Your task to perform on an android device: turn off notifications in google photos Image 0: 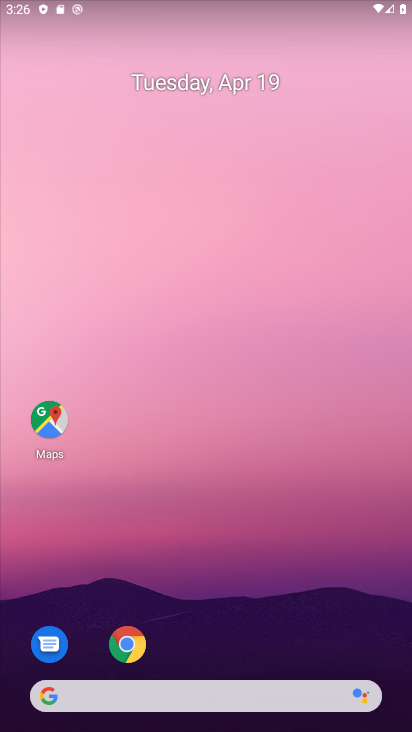
Step 0: drag from (203, 687) to (293, 160)
Your task to perform on an android device: turn off notifications in google photos Image 1: 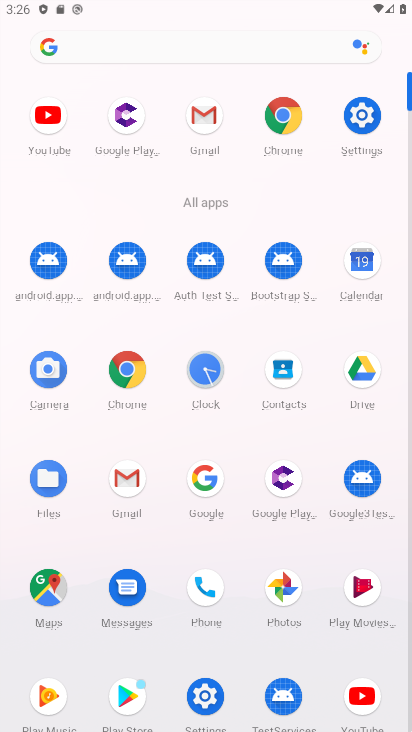
Step 1: click (300, 595)
Your task to perform on an android device: turn off notifications in google photos Image 2: 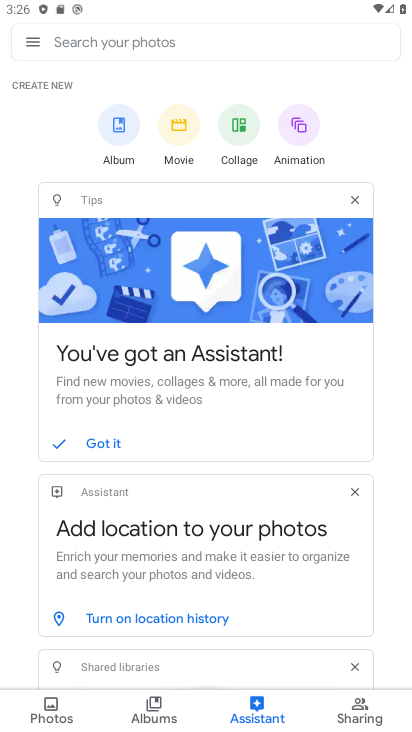
Step 2: click (42, 41)
Your task to perform on an android device: turn off notifications in google photos Image 3: 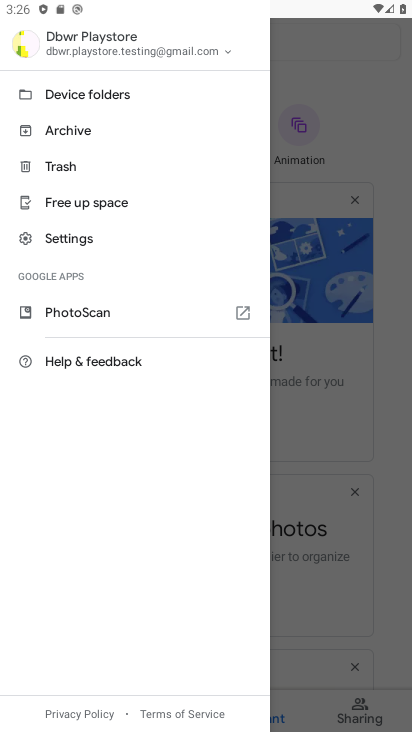
Step 3: click (106, 242)
Your task to perform on an android device: turn off notifications in google photos Image 4: 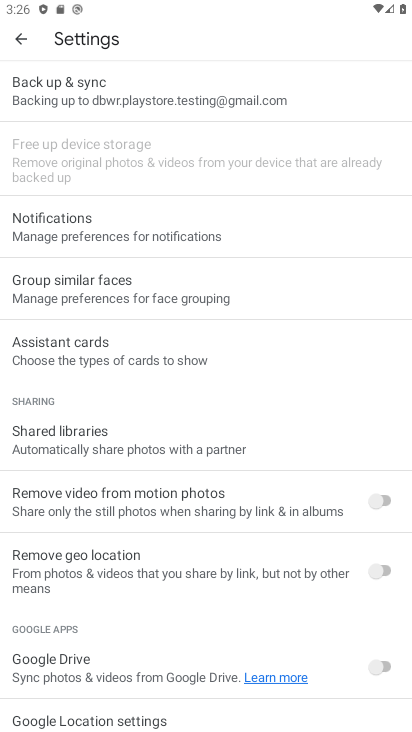
Step 4: click (156, 237)
Your task to perform on an android device: turn off notifications in google photos Image 5: 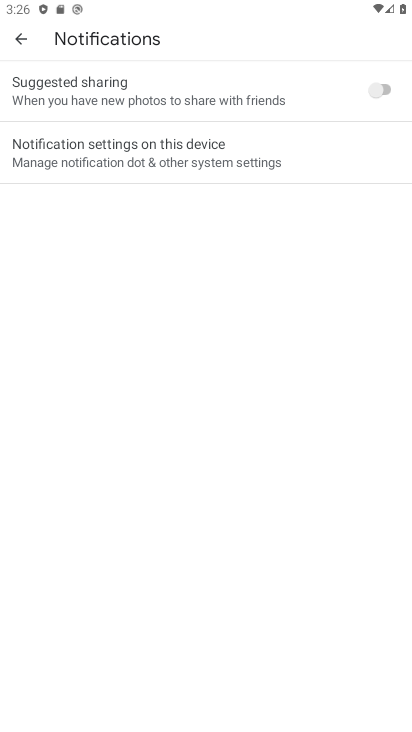
Step 5: click (203, 177)
Your task to perform on an android device: turn off notifications in google photos Image 6: 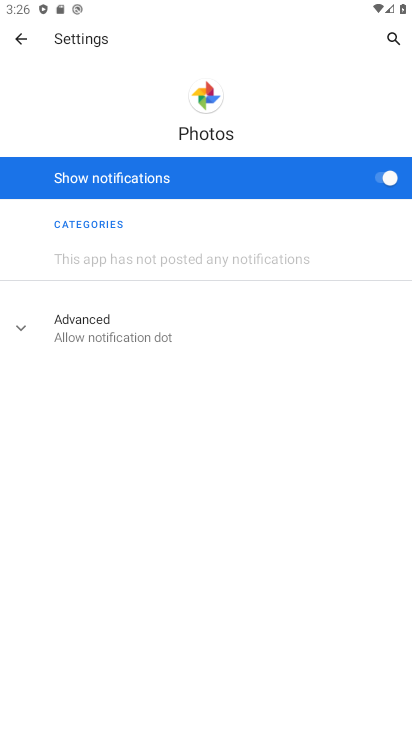
Step 6: click (381, 172)
Your task to perform on an android device: turn off notifications in google photos Image 7: 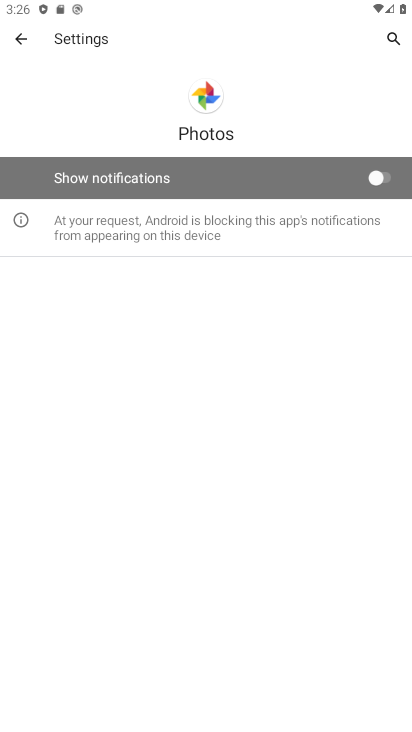
Step 7: task complete